Your task to perform on an android device: toggle priority inbox in the gmail app Image 0: 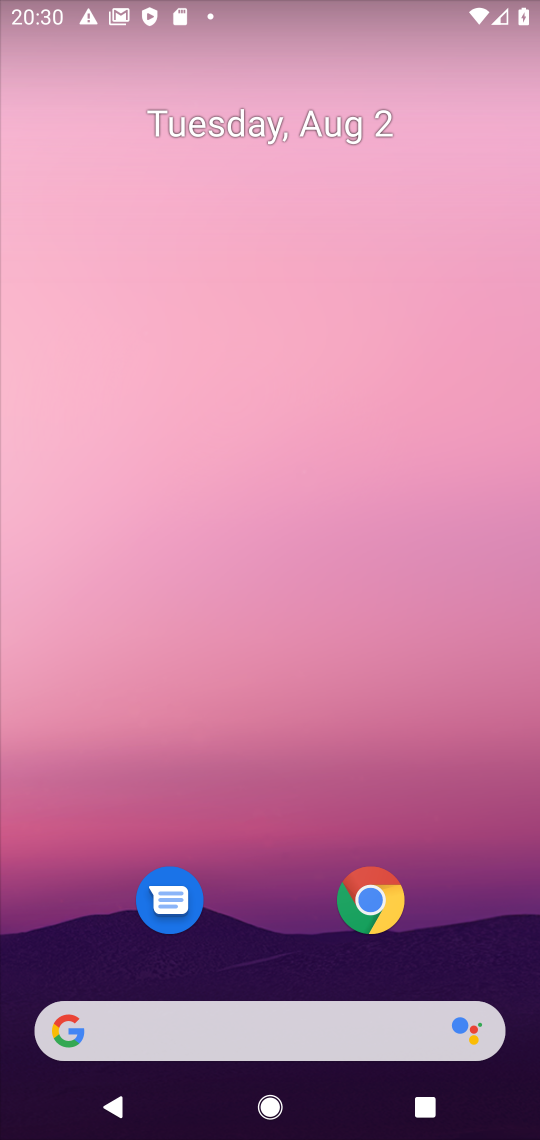
Step 0: drag from (271, 681) to (368, 0)
Your task to perform on an android device: toggle priority inbox in the gmail app Image 1: 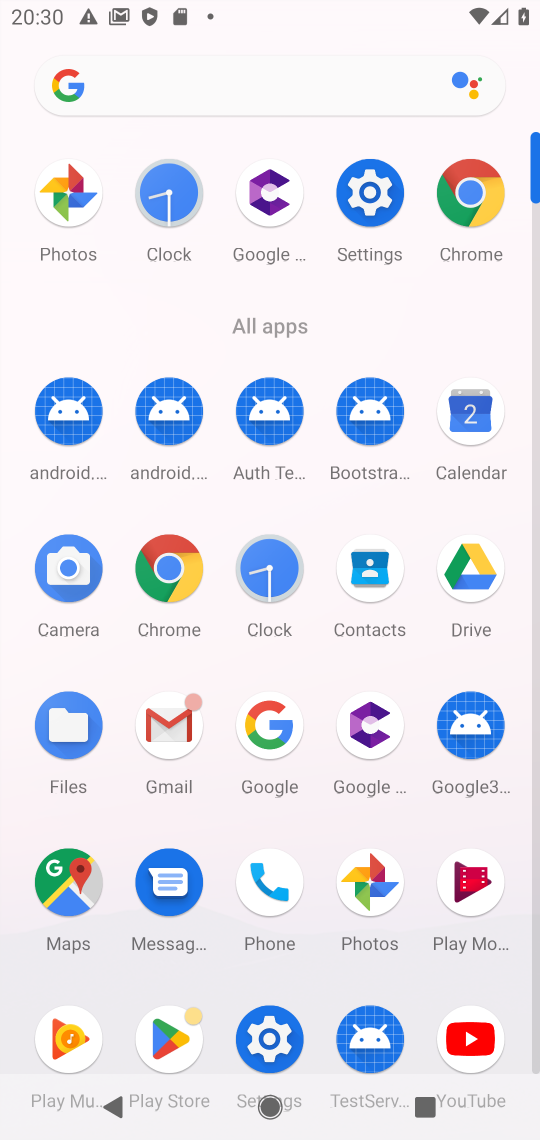
Step 1: click (177, 725)
Your task to perform on an android device: toggle priority inbox in the gmail app Image 2: 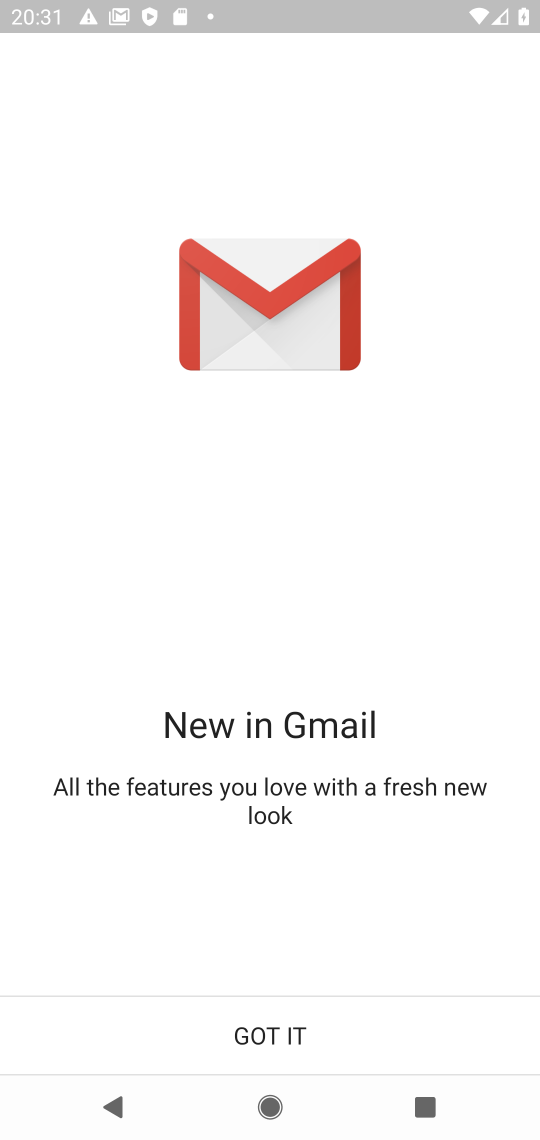
Step 2: click (312, 1034)
Your task to perform on an android device: toggle priority inbox in the gmail app Image 3: 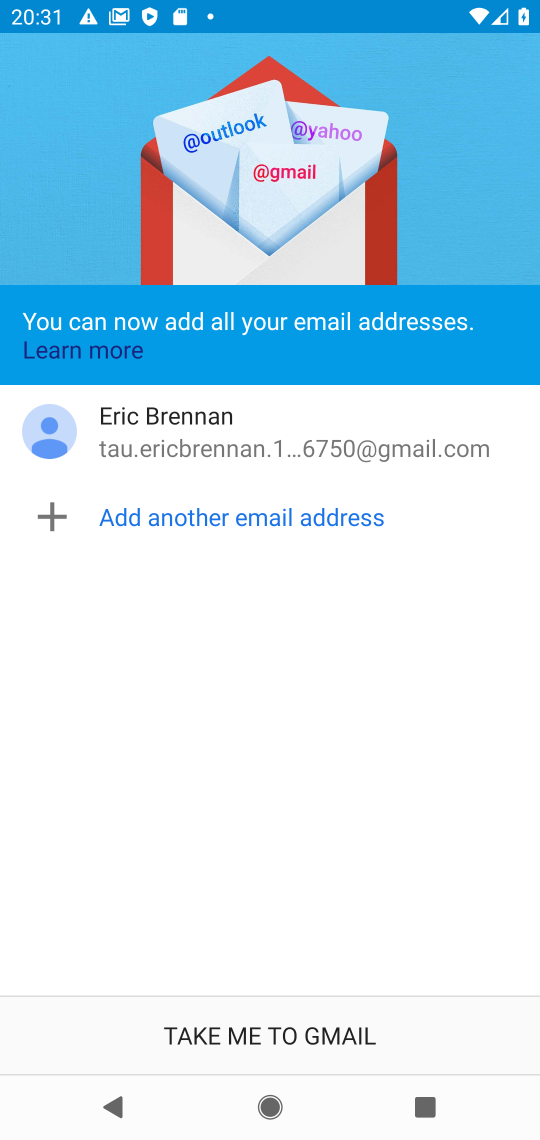
Step 3: click (312, 1032)
Your task to perform on an android device: toggle priority inbox in the gmail app Image 4: 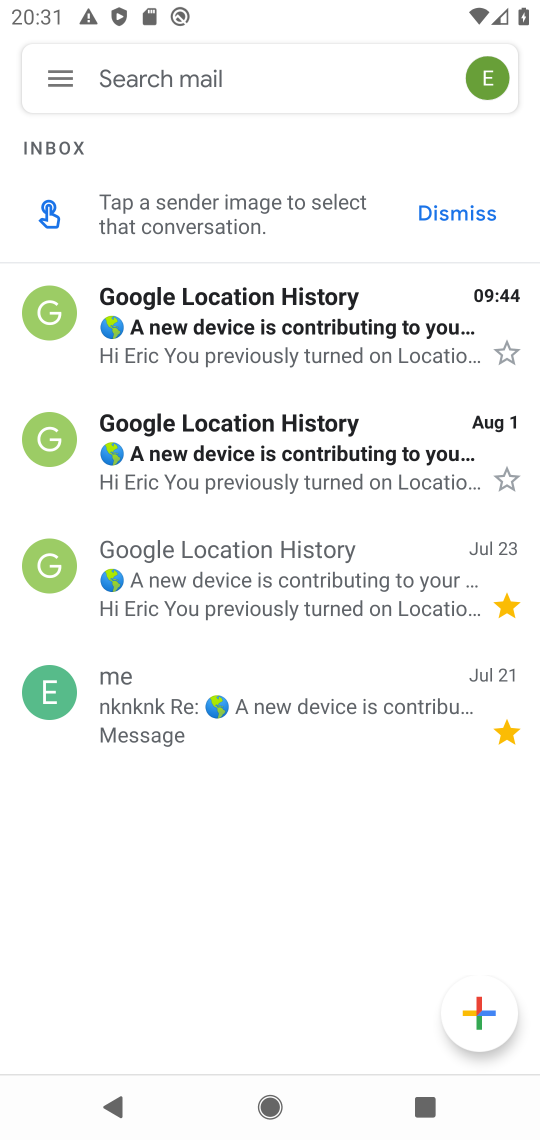
Step 4: click (64, 76)
Your task to perform on an android device: toggle priority inbox in the gmail app Image 5: 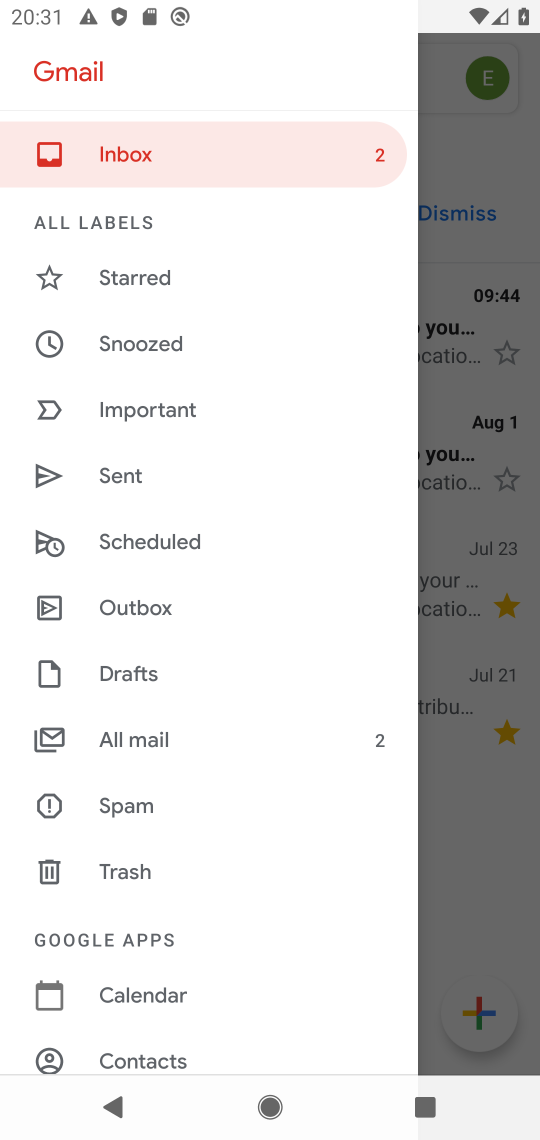
Step 5: drag from (215, 876) to (273, 500)
Your task to perform on an android device: toggle priority inbox in the gmail app Image 6: 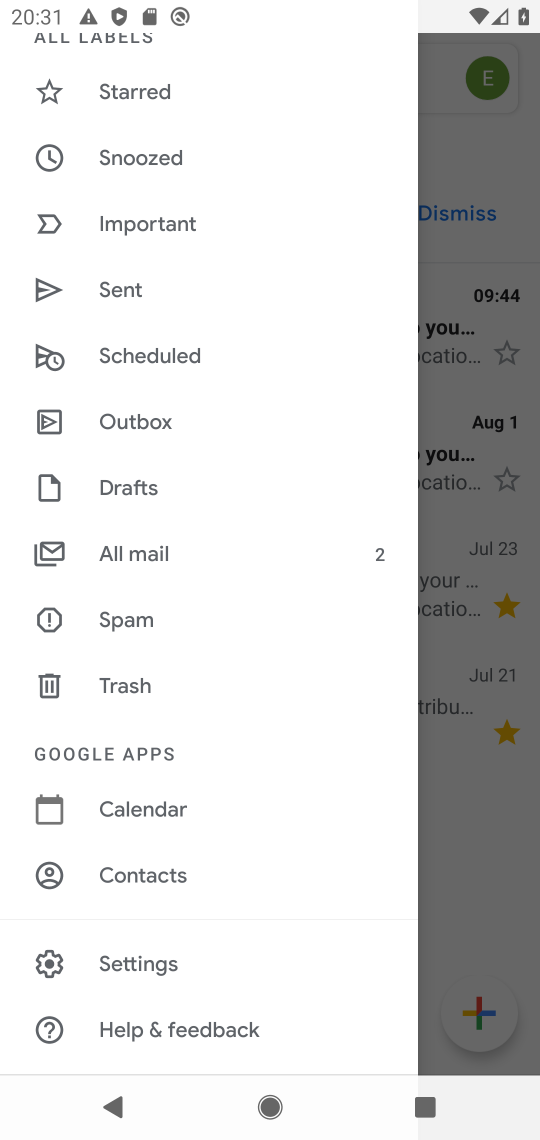
Step 6: click (141, 961)
Your task to perform on an android device: toggle priority inbox in the gmail app Image 7: 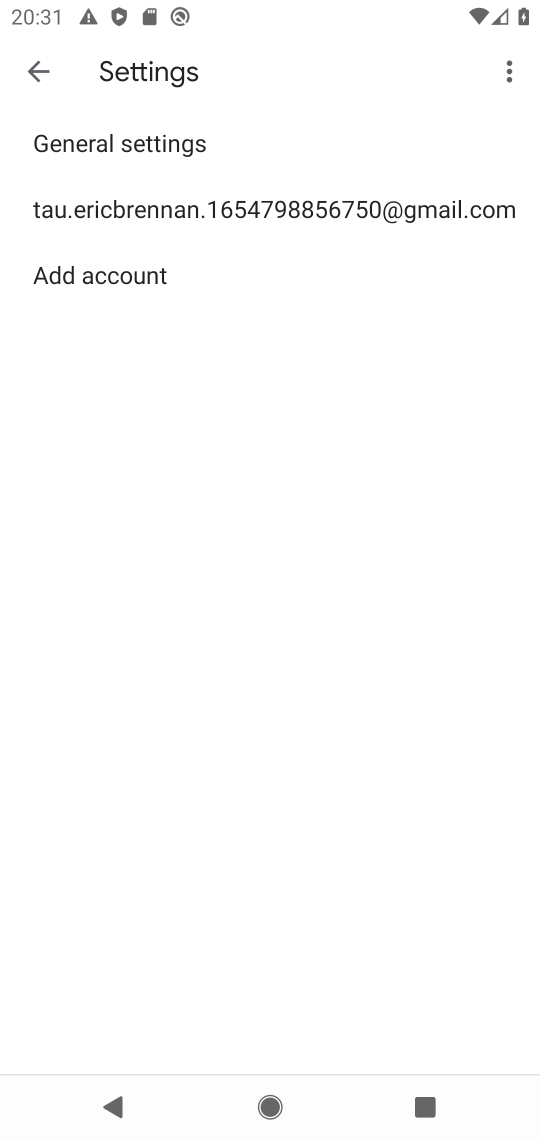
Step 7: click (343, 201)
Your task to perform on an android device: toggle priority inbox in the gmail app Image 8: 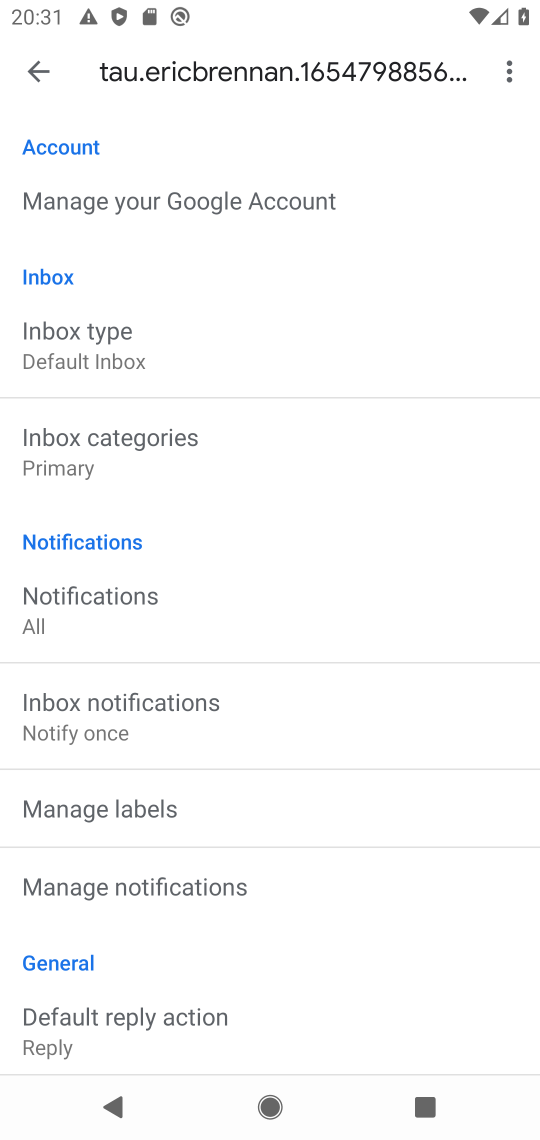
Step 8: click (124, 353)
Your task to perform on an android device: toggle priority inbox in the gmail app Image 9: 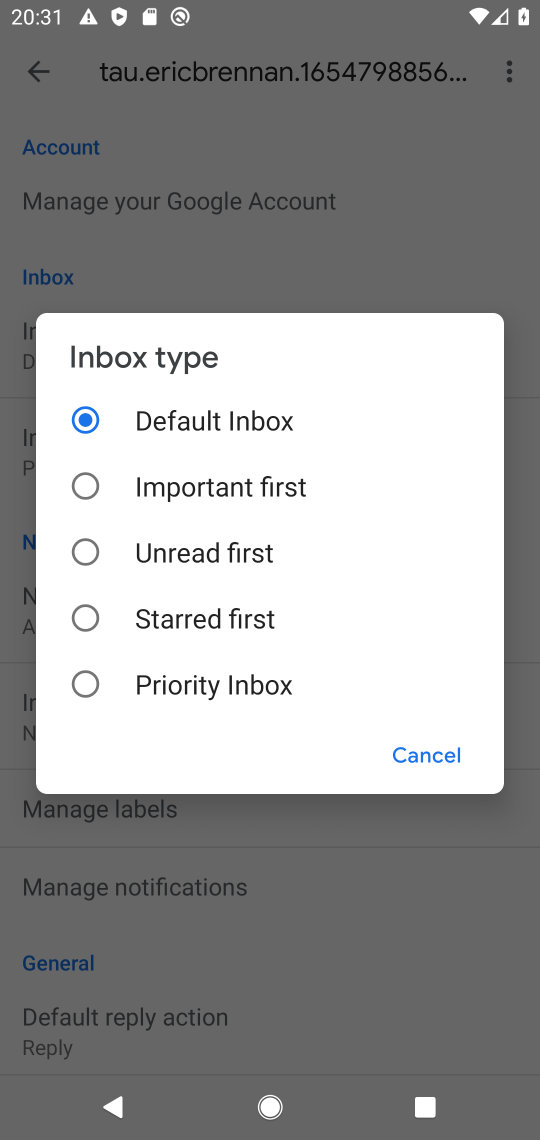
Step 9: click (77, 681)
Your task to perform on an android device: toggle priority inbox in the gmail app Image 10: 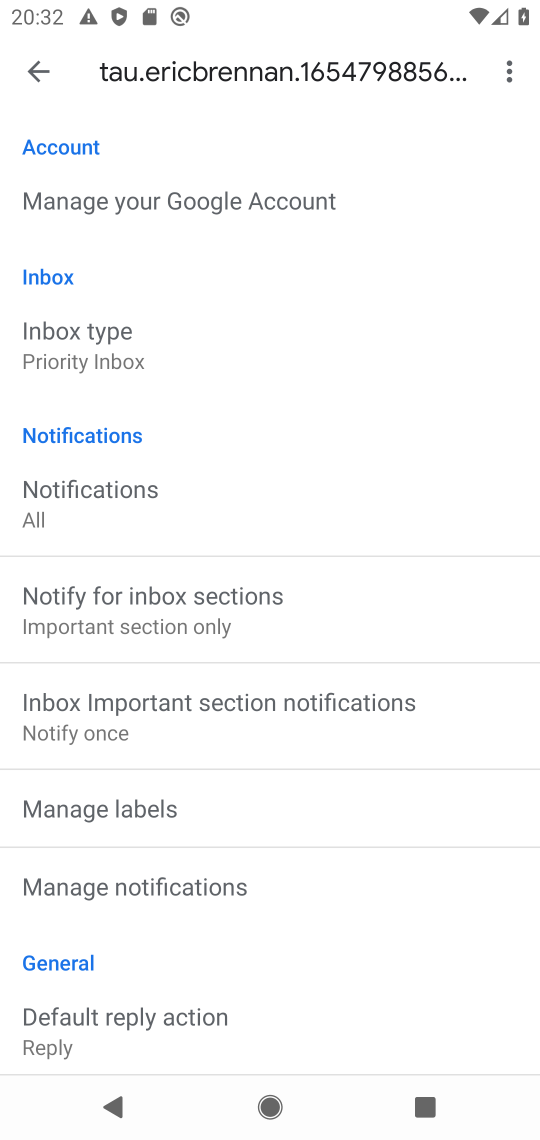
Step 10: task complete